Your task to perform on an android device: Do I have any events tomorrow? Image 0: 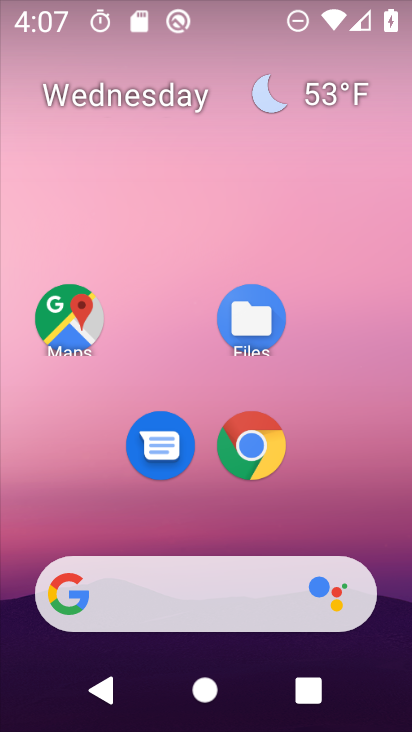
Step 0: drag from (314, 500) to (332, 74)
Your task to perform on an android device: Do I have any events tomorrow? Image 1: 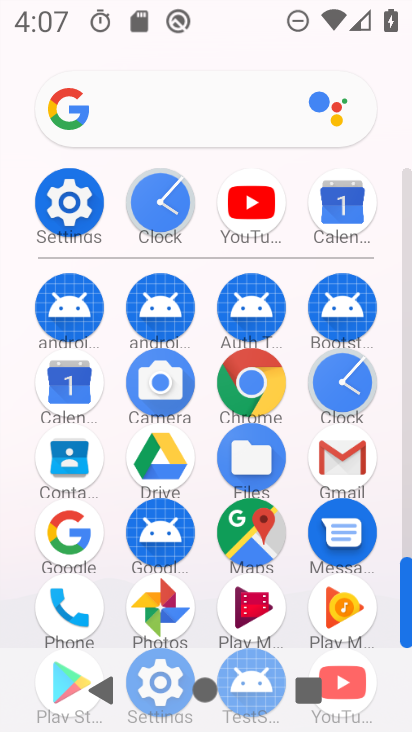
Step 1: click (350, 211)
Your task to perform on an android device: Do I have any events tomorrow? Image 2: 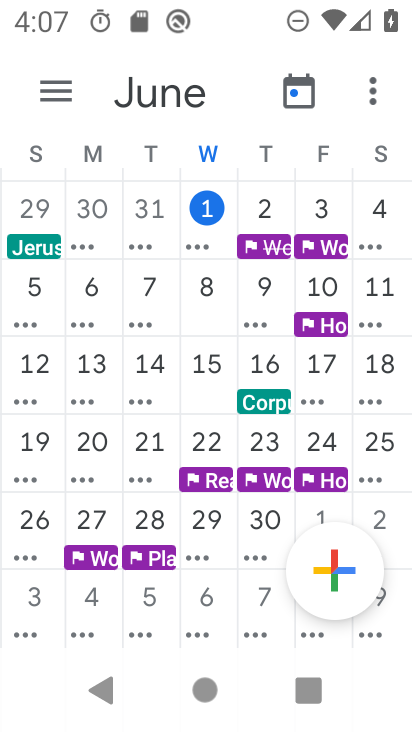
Step 2: click (62, 79)
Your task to perform on an android device: Do I have any events tomorrow? Image 3: 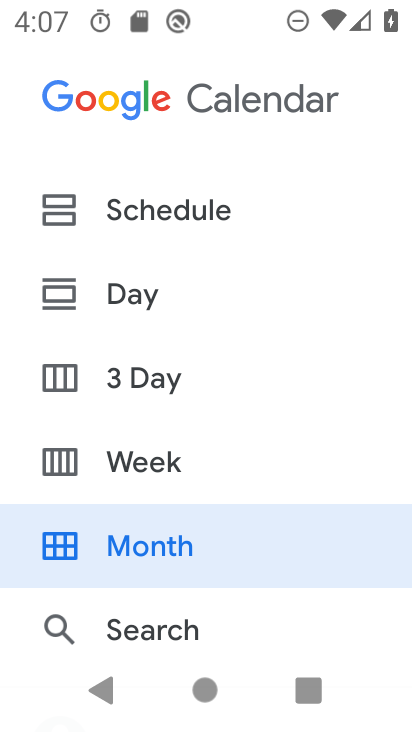
Step 3: click (173, 543)
Your task to perform on an android device: Do I have any events tomorrow? Image 4: 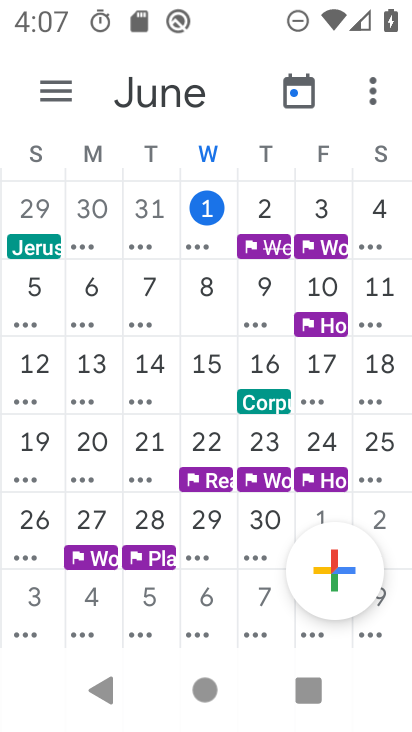
Step 4: click (259, 202)
Your task to perform on an android device: Do I have any events tomorrow? Image 5: 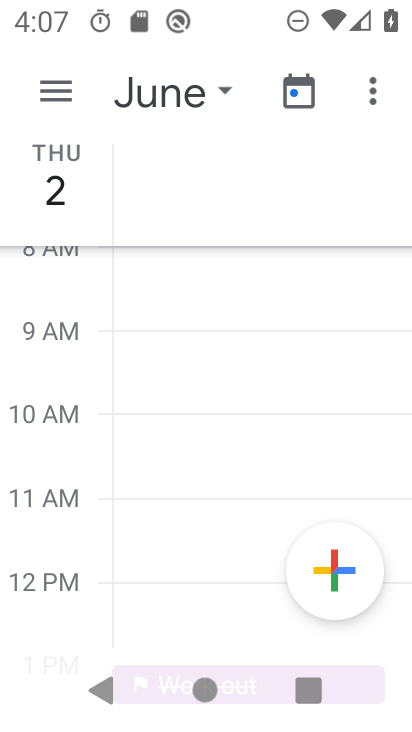
Step 5: click (199, 386)
Your task to perform on an android device: Do I have any events tomorrow? Image 6: 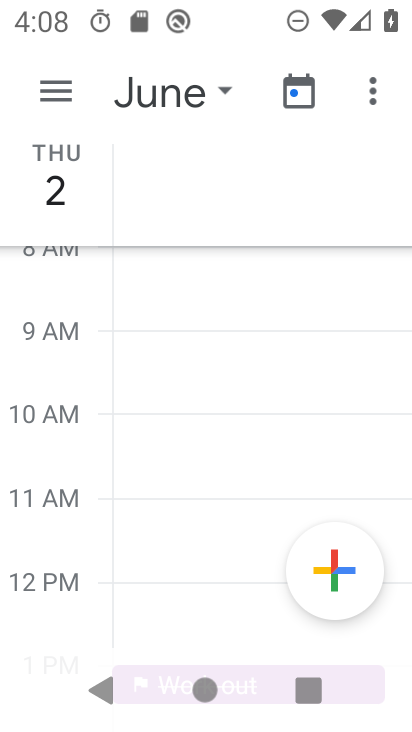
Step 6: task complete